Your task to perform on an android device: install app "Airtel Thanks" Image 0: 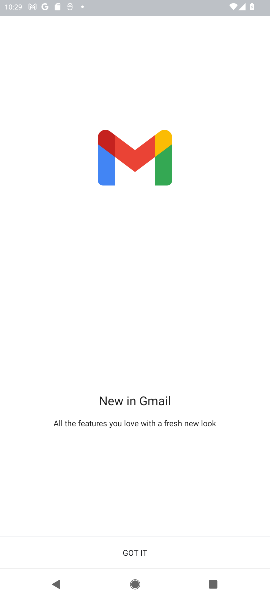
Step 0: press home button
Your task to perform on an android device: install app "Airtel Thanks" Image 1: 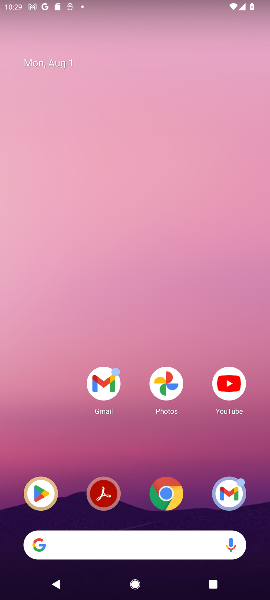
Step 1: click (55, 488)
Your task to perform on an android device: install app "Airtel Thanks" Image 2: 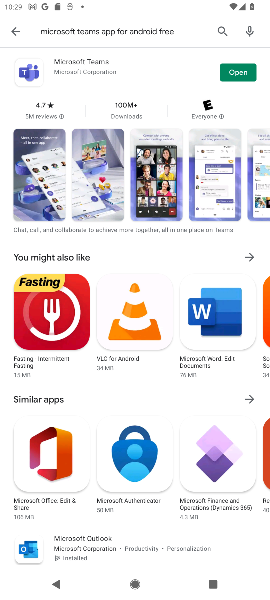
Step 2: click (55, 488)
Your task to perform on an android device: install app "Airtel Thanks" Image 3: 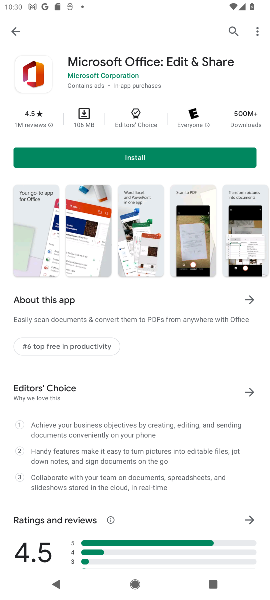
Step 3: click (236, 32)
Your task to perform on an android device: install app "Airtel Thanks" Image 4: 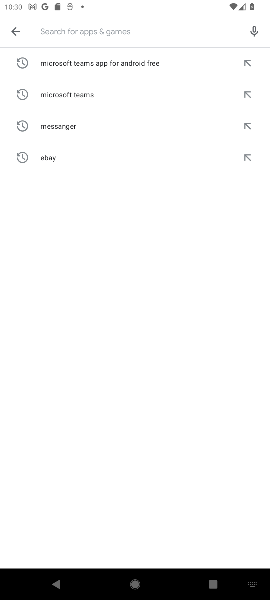
Step 4: type "airtel"
Your task to perform on an android device: install app "Airtel Thanks" Image 5: 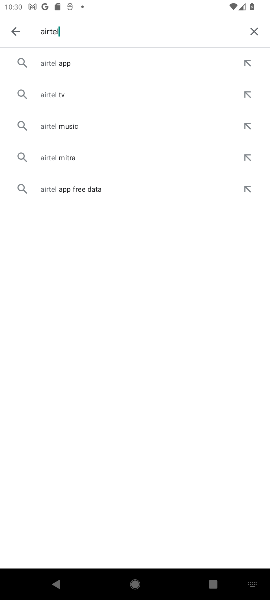
Step 5: click (126, 70)
Your task to perform on an android device: install app "Airtel Thanks" Image 6: 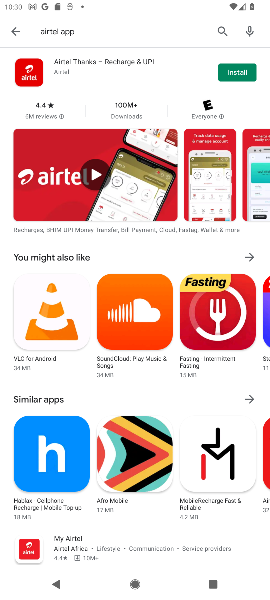
Step 6: click (226, 69)
Your task to perform on an android device: install app "Airtel Thanks" Image 7: 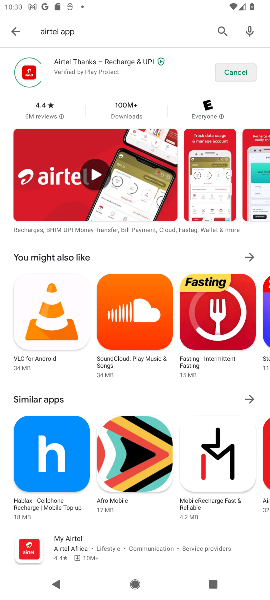
Step 7: task complete